Your task to perform on an android device: empty trash in google photos Image 0: 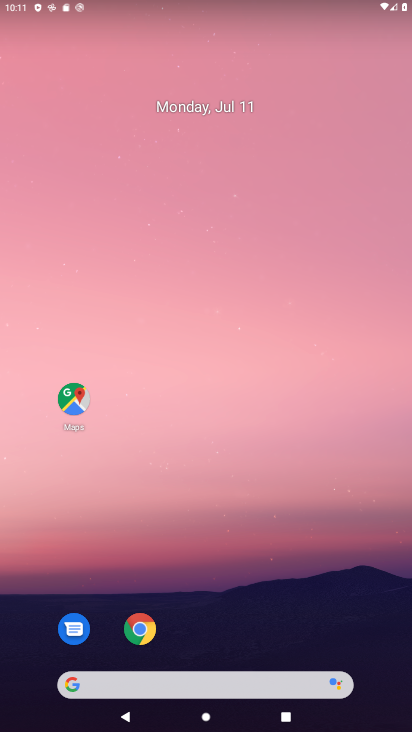
Step 0: drag from (270, 612) to (257, 75)
Your task to perform on an android device: empty trash in google photos Image 1: 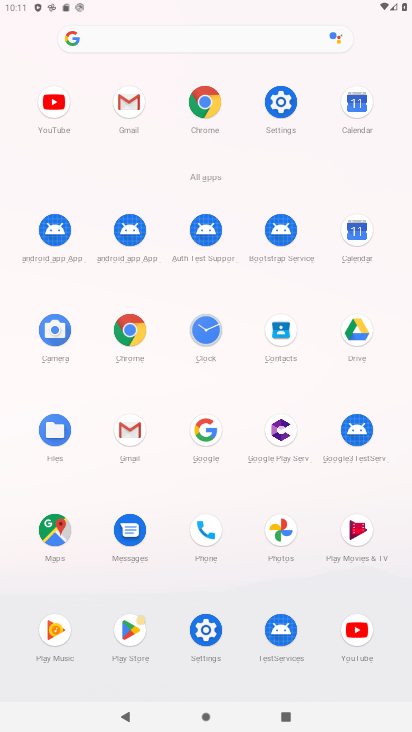
Step 1: click (287, 529)
Your task to perform on an android device: empty trash in google photos Image 2: 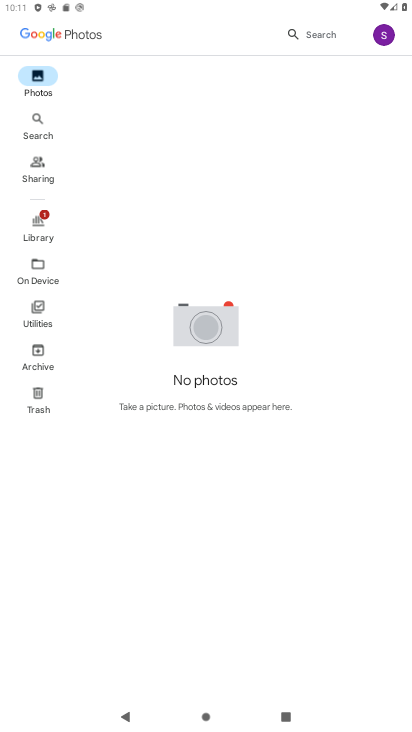
Step 2: task complete